Your task to perform on an android device: remove spam from my inbox in the gmail app Image 0: 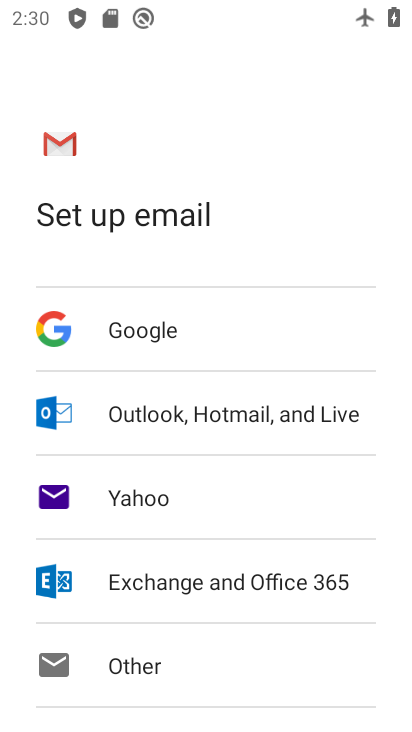
Step 0: press home button
Your task to perform on an android device: remove spam from my inbox in the gmail app Image 1: 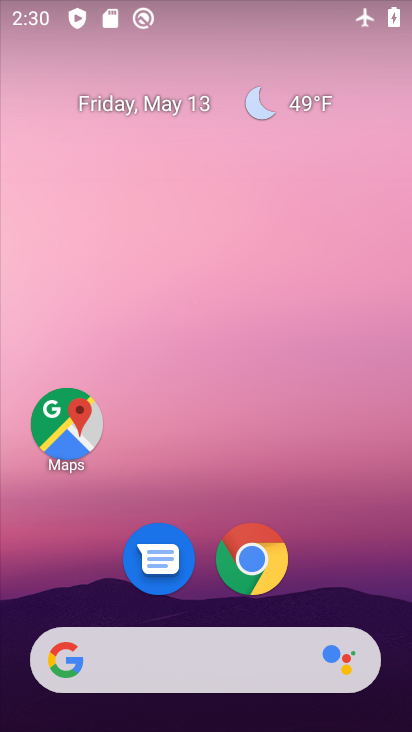
Step 1: drag from (391, 638) to (315, 140)
Your task to perform on an android device: remove spam from my inbox in the gmail app Image 2: 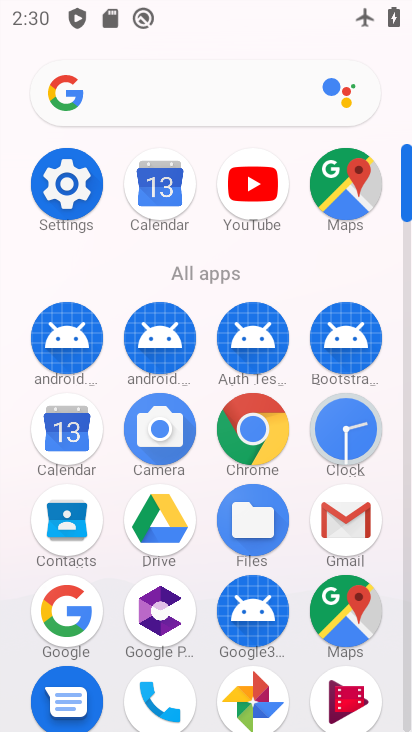
Step 2: click (411, 705)
Your task to perform on an android device: remove spam from my inbox in the gmail app Image 3: 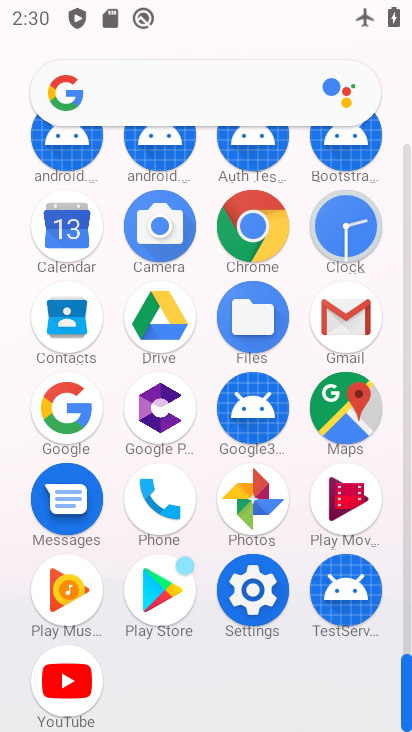
Step 3: click (345, 318)
Your task to perform on an android device: remove spam from my inbox in the gmail app Image 4: 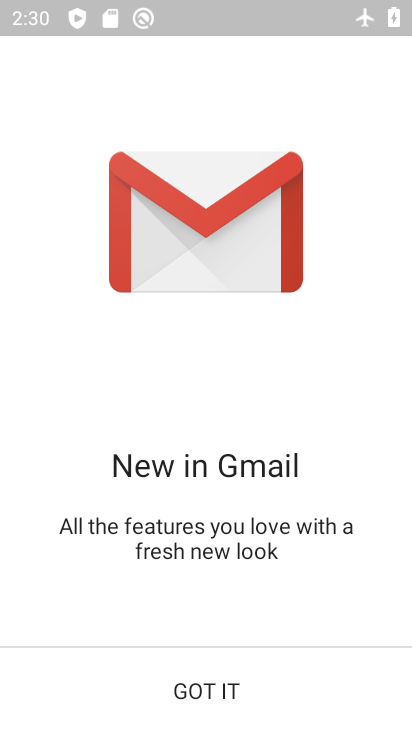
Step 4: click (202, 691)
Your task to perform on an android device: remove spam from my inbox in the gmail app Image 5: 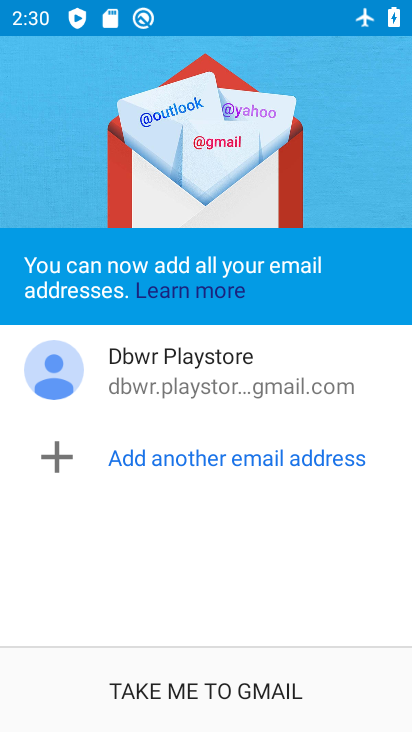
Step 5: click (175, 680)
Your task to perform on an android device: remove spam from my inbox in the gmail app Image 6: 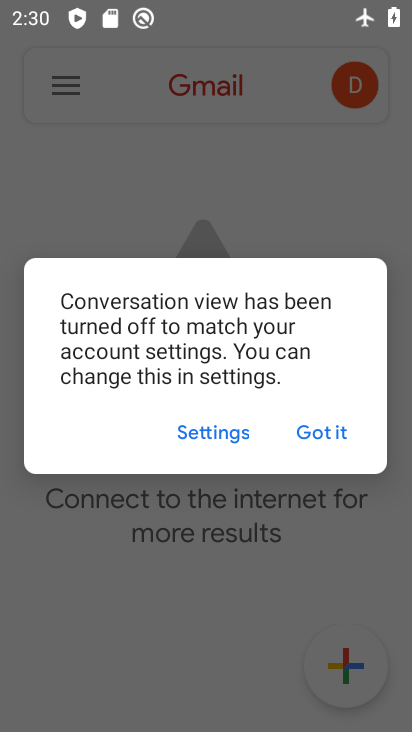
Step 6: click (318, 430)
Your task to perform on an android device: remove spam from my inbox in the gmail app Image 7: 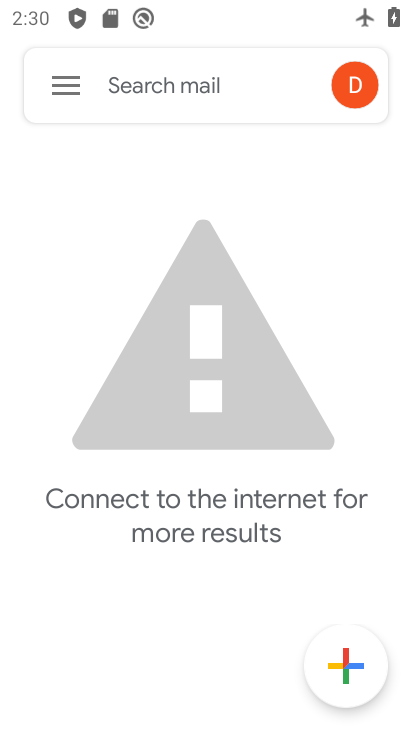
Step 7: click (65, 86)
Your task to perform on an android device: remove spam from my inbox in the gmail app Image 8: 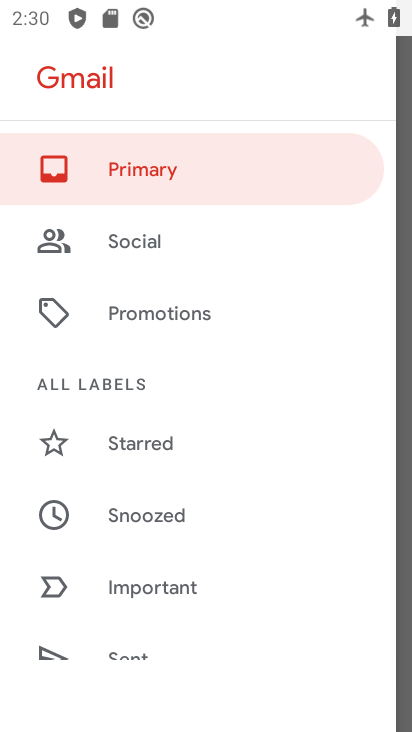
Step 8: drag from (231, 605) to (214, 69)
Your task to perform on an android device: remove spam from my inbox in the gmail app Image 9: 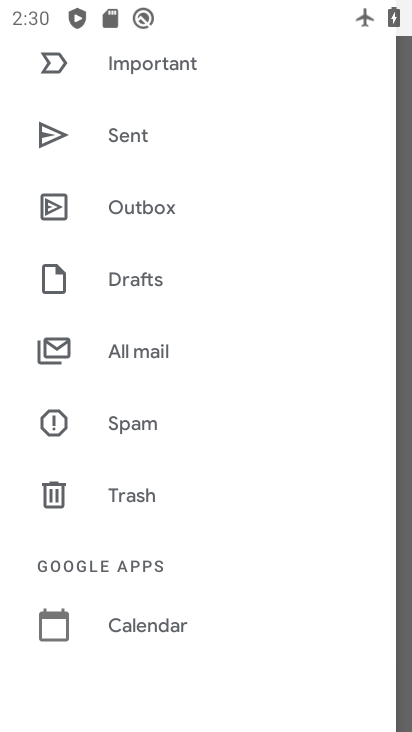
Step 9: click (121, 424)
Your task to perform on an android device: remove spam from my inbox in the gmail app Image 10: 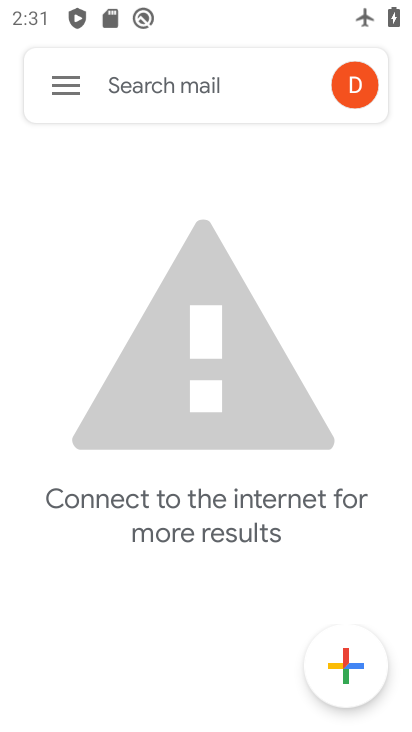
Step 10: task complete